Your task to perform on an android device: turn on showing notifications on the lock screen Image 0: 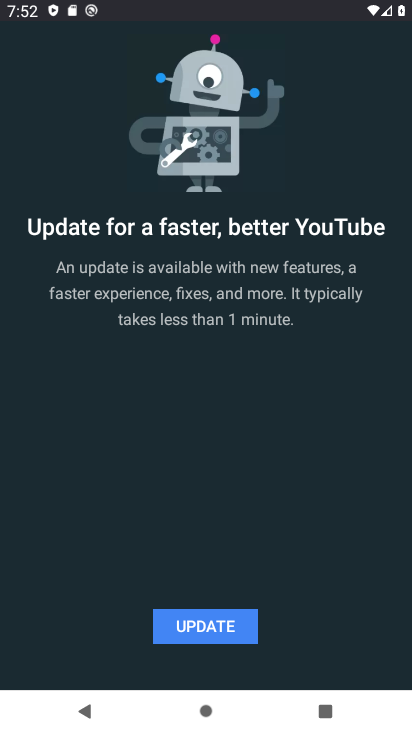
Step 0: press home button
Your task to perform on an android device: turn on showing notifications on the lock screen Image 1: 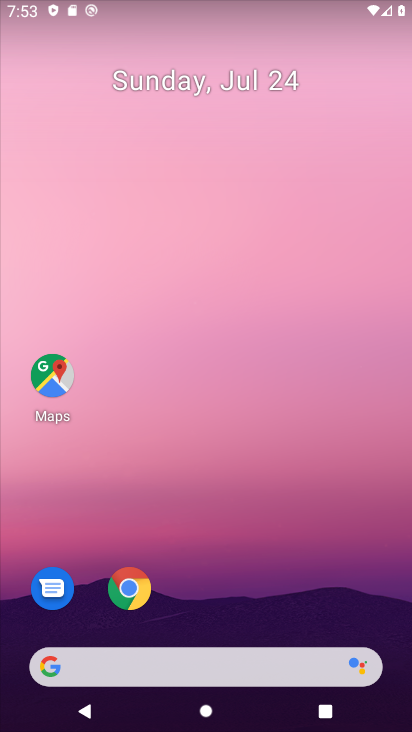
Step 1: drag from (209, 588) to (393, 465)
Your task to perform on an android device: turn on showing notifications on the lock screen Image 2: 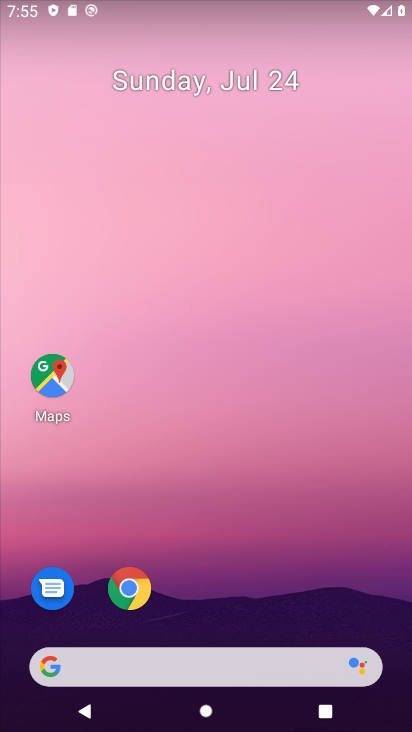
Step 2: drag from (190, 700) to (225, 0)
Your task to perform on an android device: turn on showing notifications on the lock screen Image 3: 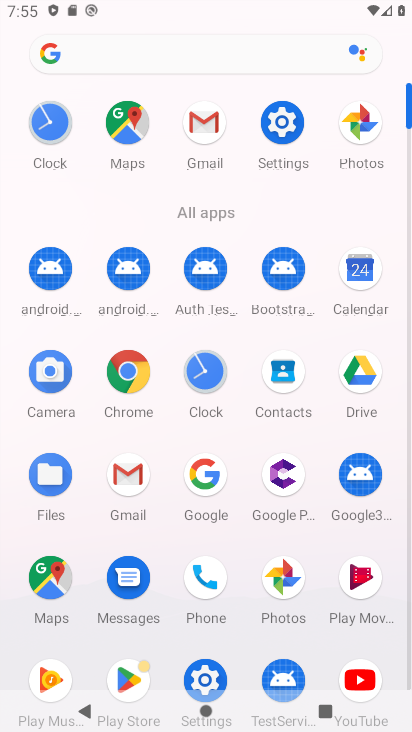
Step 3: click (279, 119)
Your task to perform on an android device: turn on showing notifications on the lock screen Image 4: 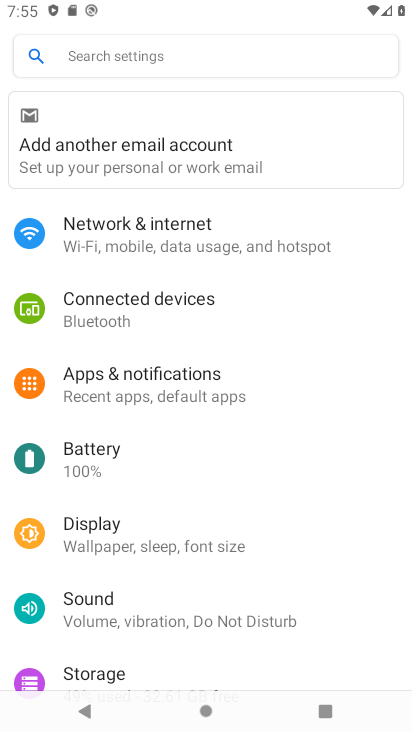
Step 4: click (184, 368)
Your task to perform on an android device: turn on showing notifications on the lock screen Image 5: 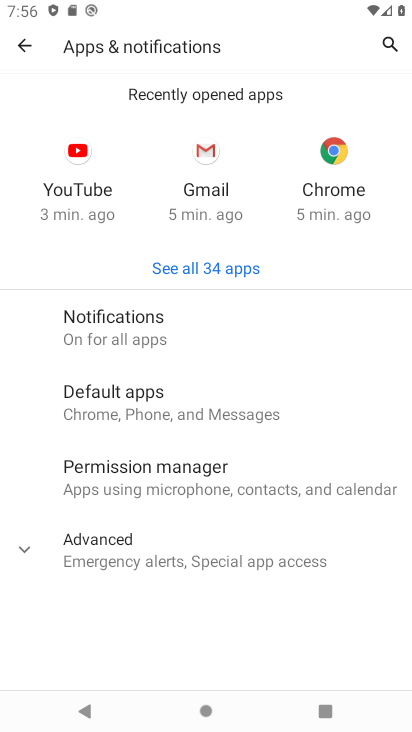
Step 5: click (169, 323)
Your task to perform on an android device: turn on showing notifications on the lock screen Image 6: 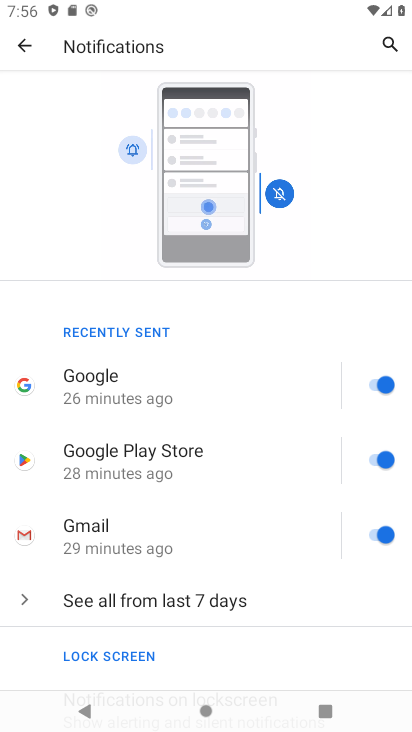
Step 6: drag from (207, 533) to (174, 137)
Your task to perform on an android device: turn on showing notifications on the lock screen Image 7: 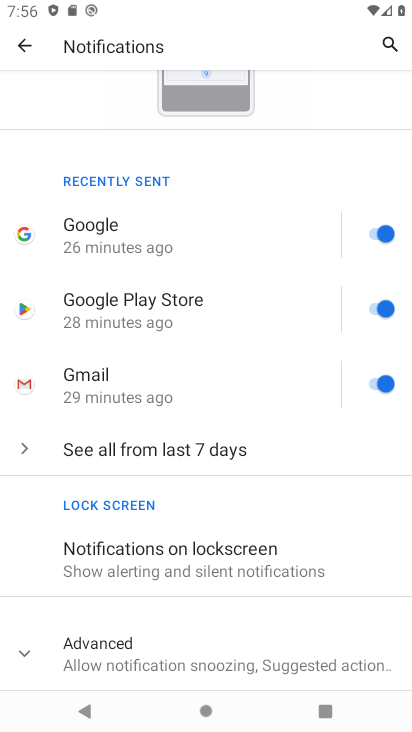
Step 7: click (166, 557)
Your task to perform on an android device: turn on showing notifications on the lock screen Image 8: 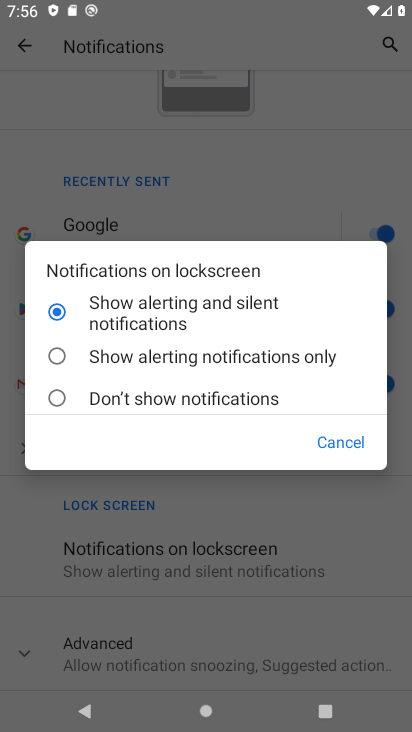
Step 8: task complete